Your task to perform on an android device: Open Reddit.com Image 0: 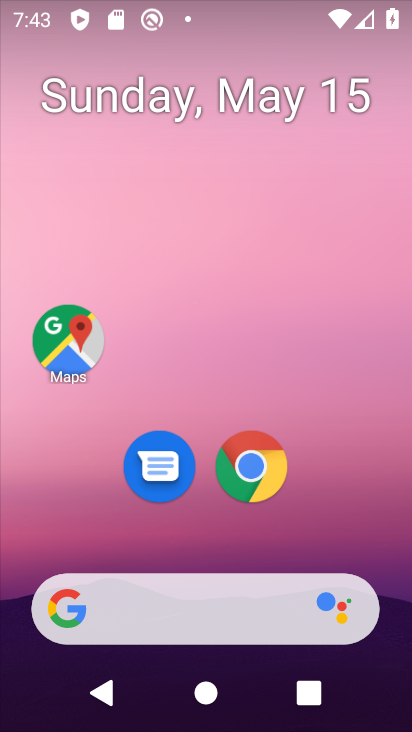
Step 0: drag from (182, 589) to (178, 6)
Your task to perform on an android device: Open Reddit.com Image 1: 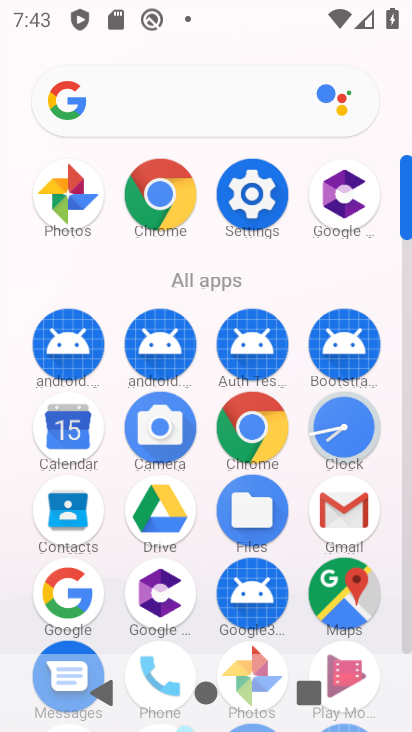
Step 1: click (268, 414)
Your task to perform on an android device: Open Reddit.com Image 2: 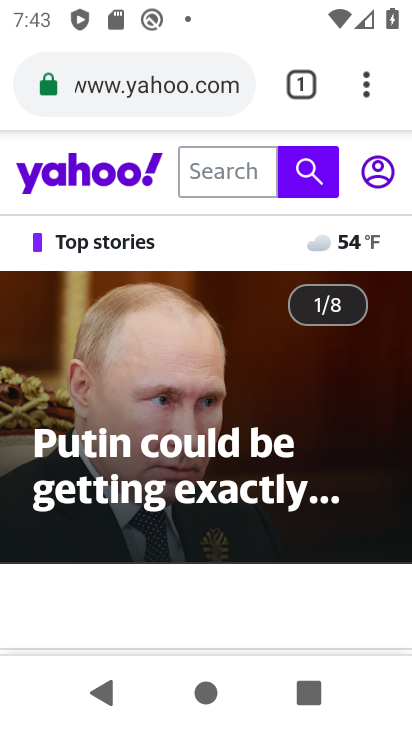
Step 2: click (300, 78)
Your task to perform on an android device: Open Reddit.com Image 3: 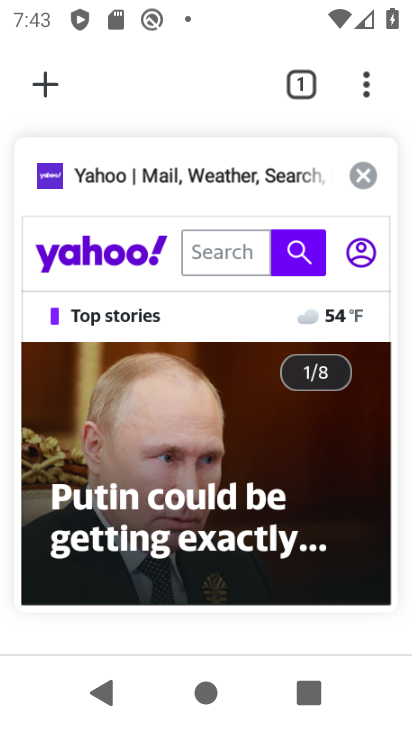
Step 3: click (62, 79)
Your task to perform on an android device: Open Reddit.com Image 4: 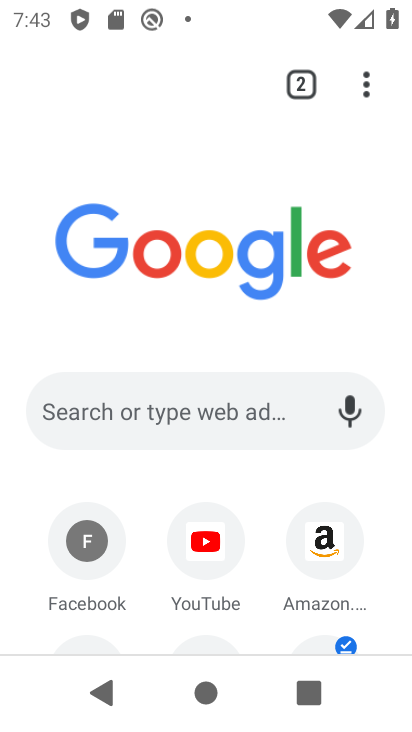
Step 4: click (177, 434)
Your task to perform on an android device: Open Reddit.com Image 5: 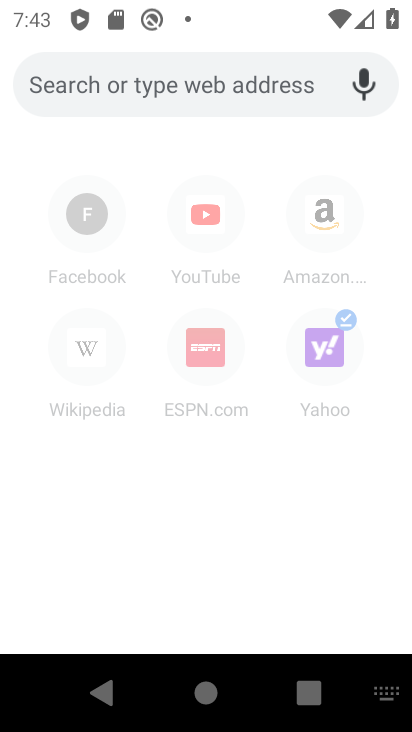
Step 5: type "reddit.copm"
Your task to perform on an android device: Open Reddit.com Image 6: 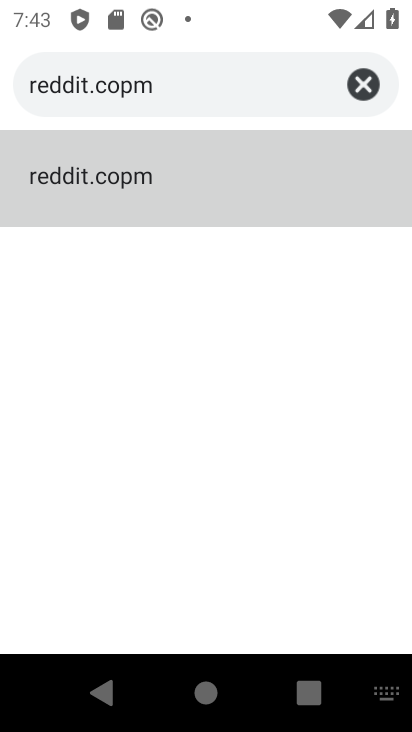
Step 6: click (44, 180)
Your task to perform on an android device: Open Reddit.com Image 7: 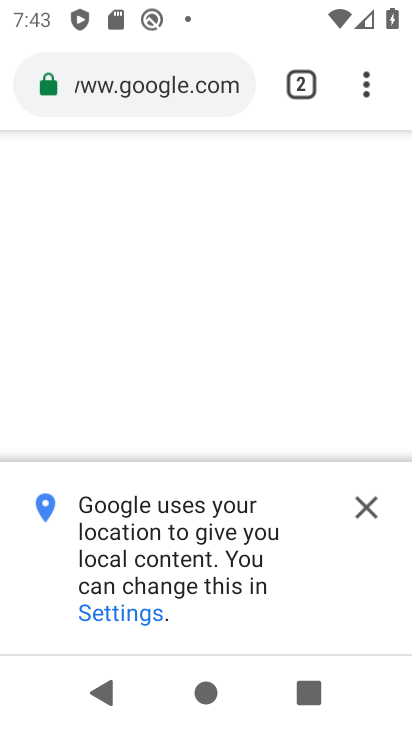
Step 7: click (361, 506)
Your task to perform on an android device: Open Reddit.com Image 8: 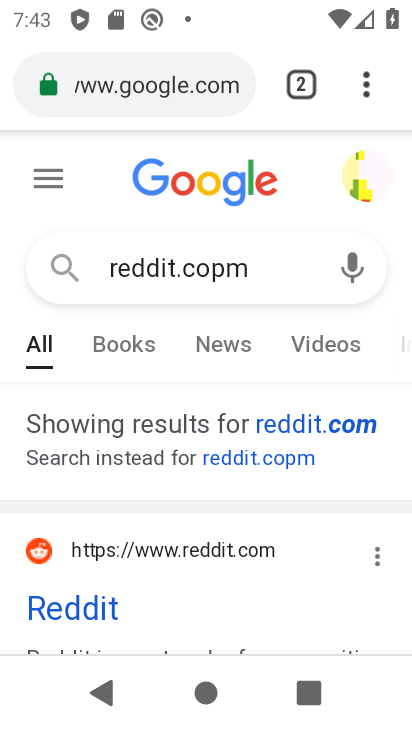
Step 8: click (98, 604)
Your task to perform on an android device: Open Reddit.com Image 9: 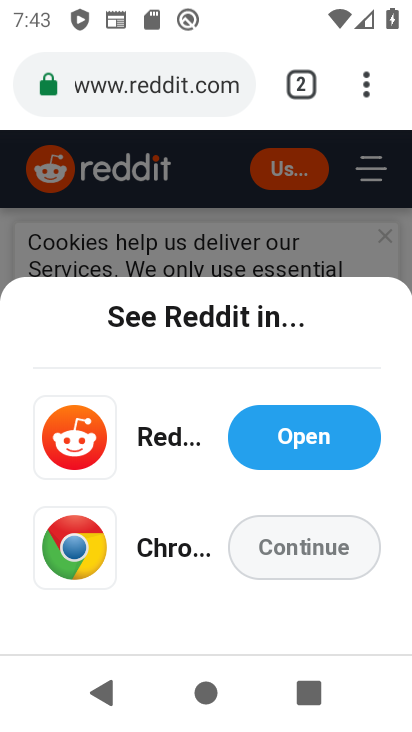
Step 9: click (330, 555)
Your task to perform on an android device: Open Reddit.com Image 10: 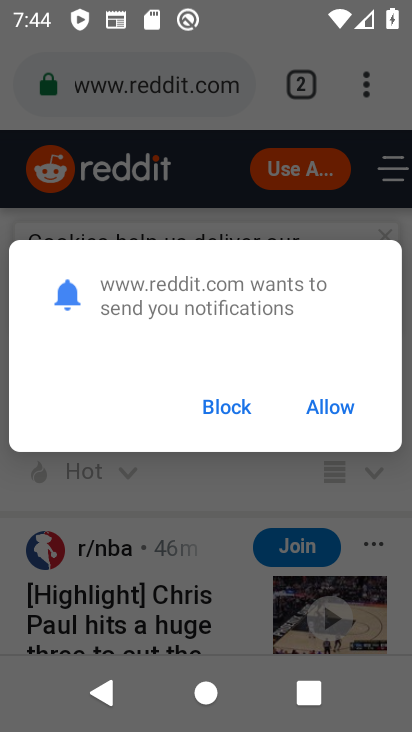
Step 10: click (332, 408)
Your task to perform on an android device: Open Reddit.com Image 11: 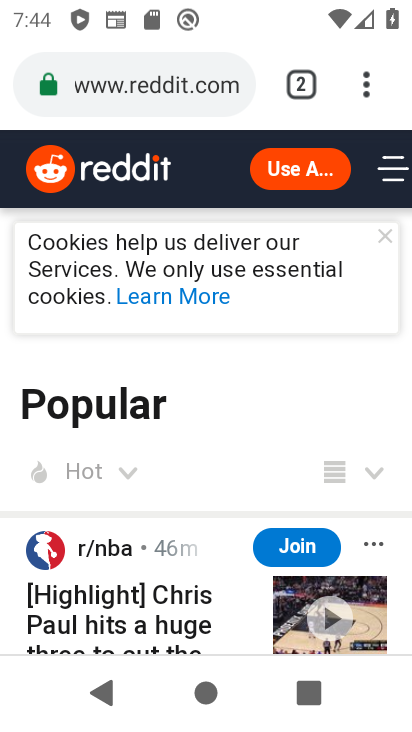
Step 11: task complete